Your task to perform on an android device: turn off priority inbox in the gmail app Image 0: 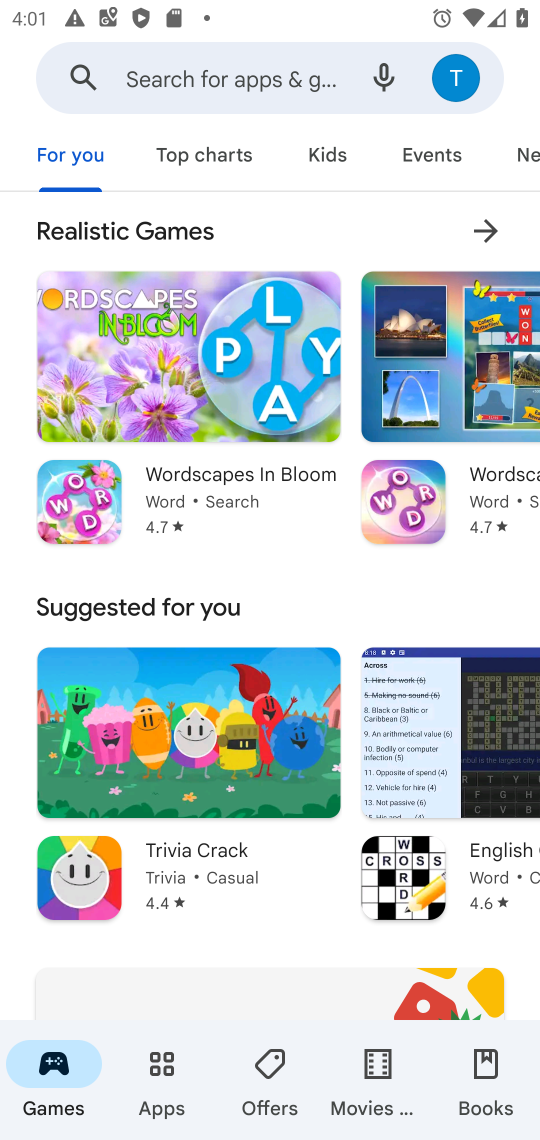
Step 0: press home button
Your task to perform on an android device: turn off priority inbox in the gmail app Image 1: 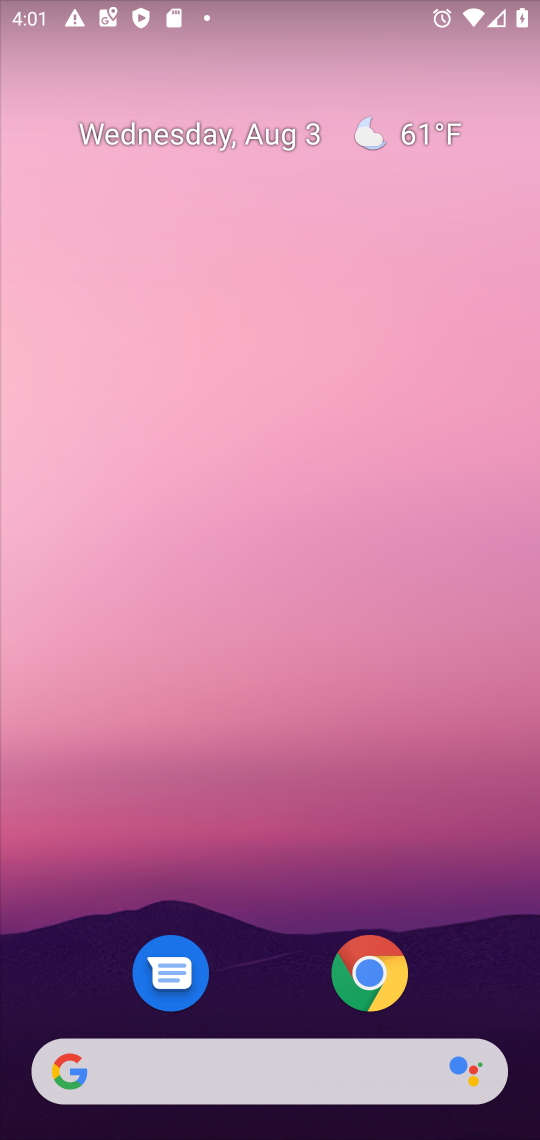
Step 1: drag from (276, 943) to (289, 90)
Your task to perform on an android device: turn off priority inbox in the gmail app Image 2: 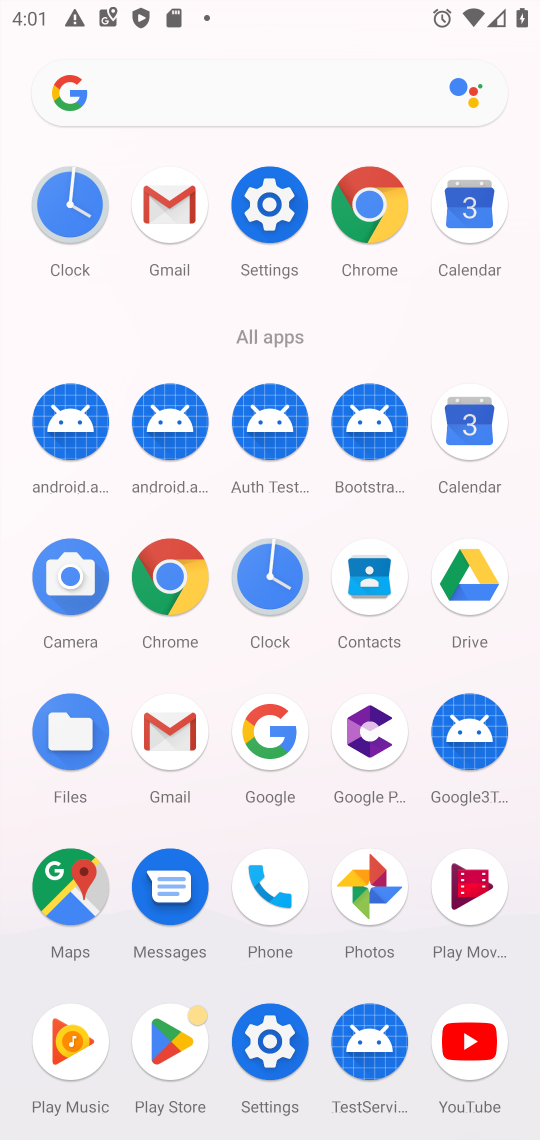
Step 2: click (167, 182)
Your task to perform on an android device: turn off priority inbox in the gmail app Image 3: 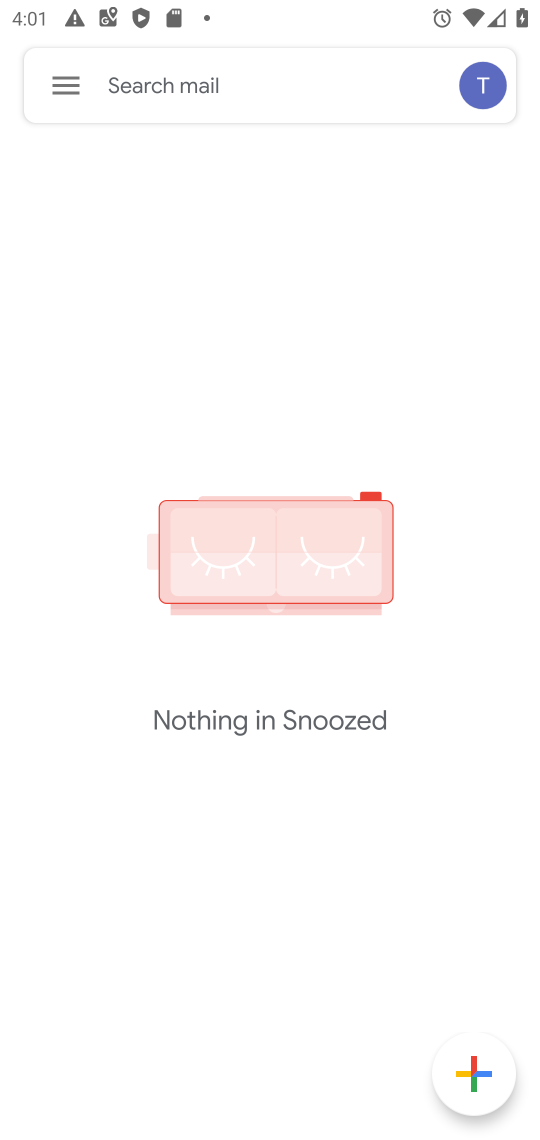
Step 3: click (55, 85)
Your task to perform on an android device: turn off priority inbox in the gmail app Image 4: 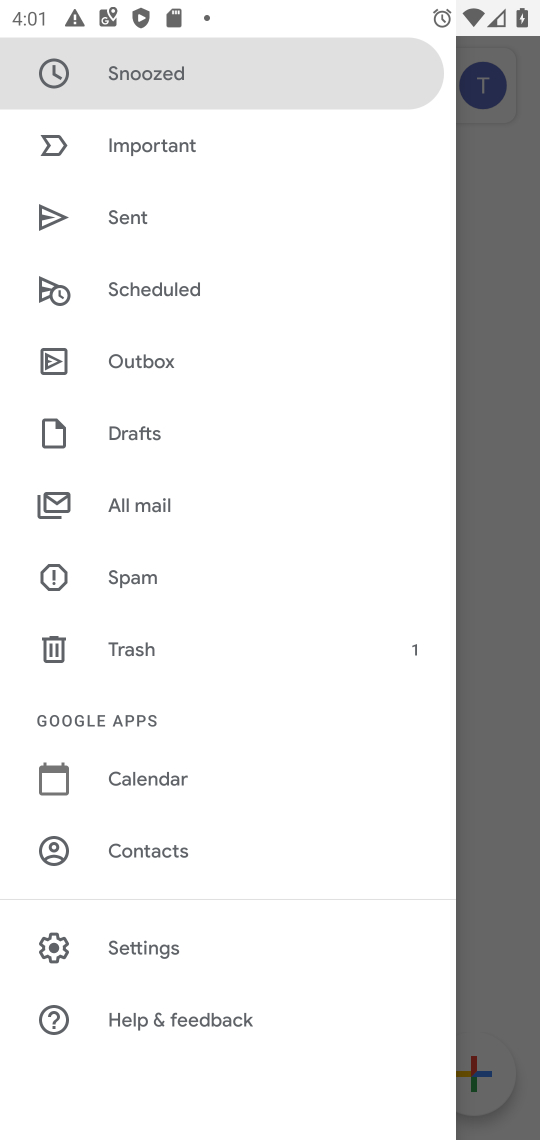
Step 4: click (159, 941)
Your task to perform on an android device: turn off priority inbox in the gmail app Image 5: 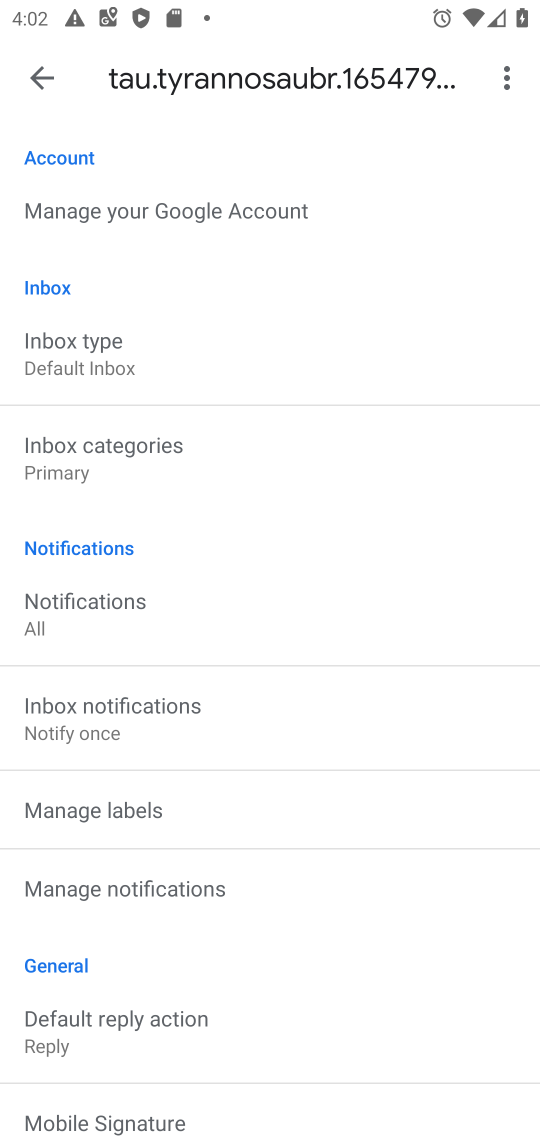
Step 5: click (110, 352)
Your task to perform on an android device: turn off priority inbox in the gmail app Image 6: 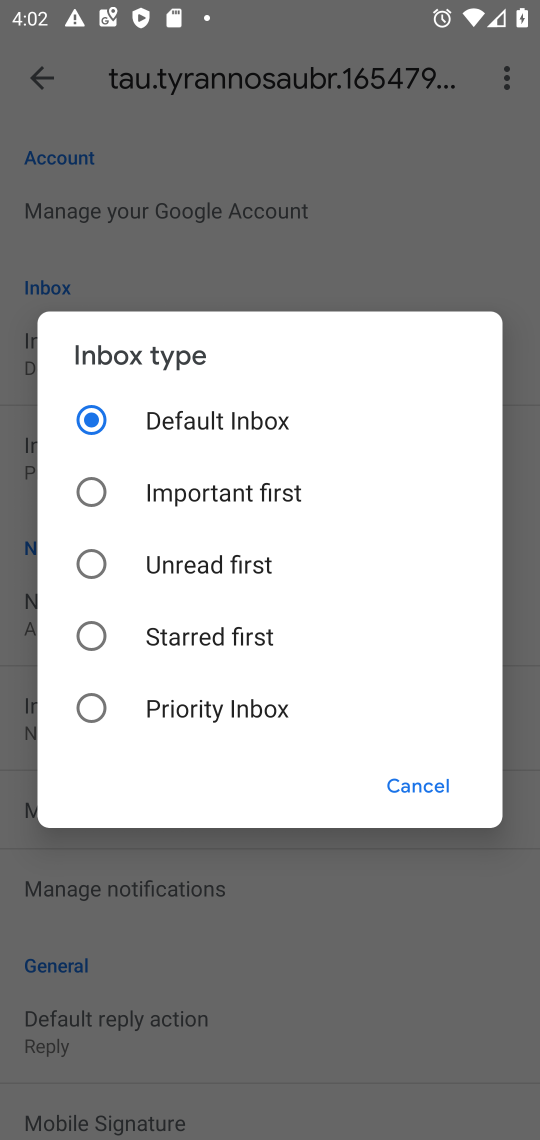
Step 6: click (154, 419)
Your task to perform on an android device: turn off priority inbox in the gmail app Image 7: 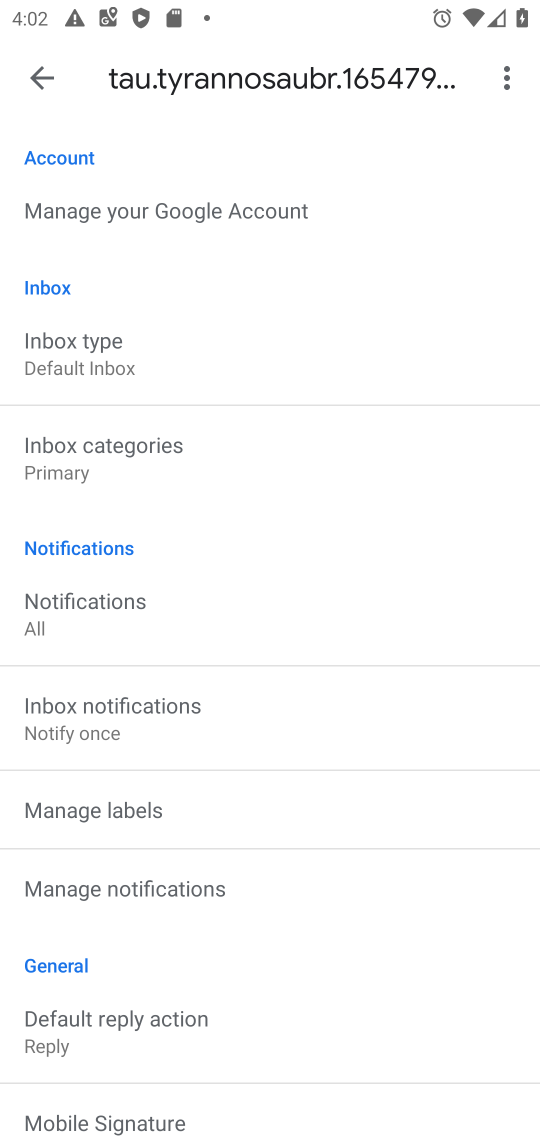
Step 7: task complete